Your task to perform on an android device: Go to accessibility settings Image 0: 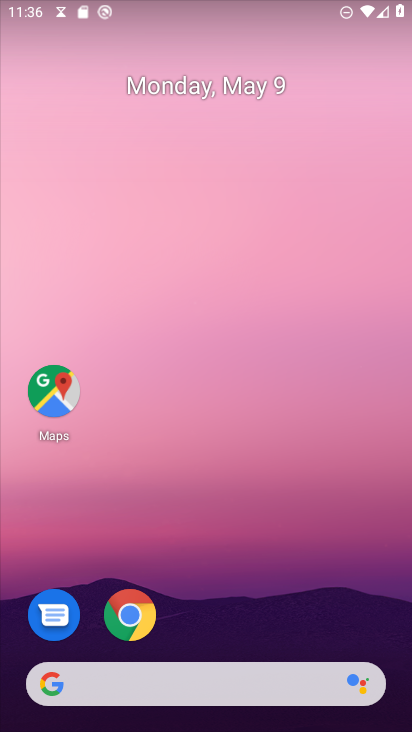
Step 0: drag from (209, 729) to (207, 222)
Your task to perform on an android device: Go to accessibility settings Image 1: 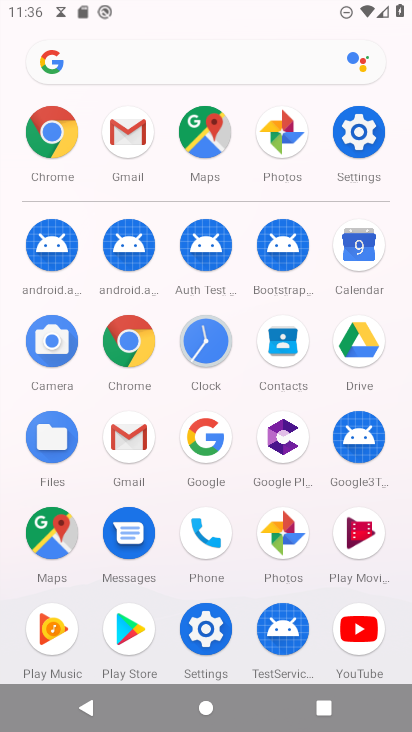
Step 1: click (357, 139)
Your task to perform on an android device: Go to accessibility settings Image 2: 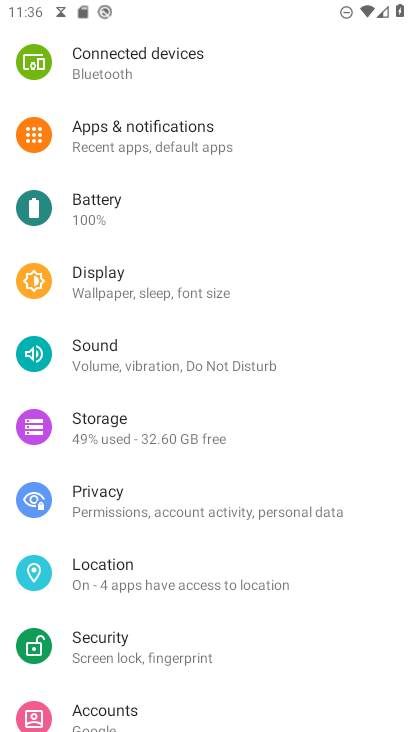
Step 2: drag from (214, 663) to (193, 235)
Your task to perform on an android device: Go to accessibility settings Image 3: 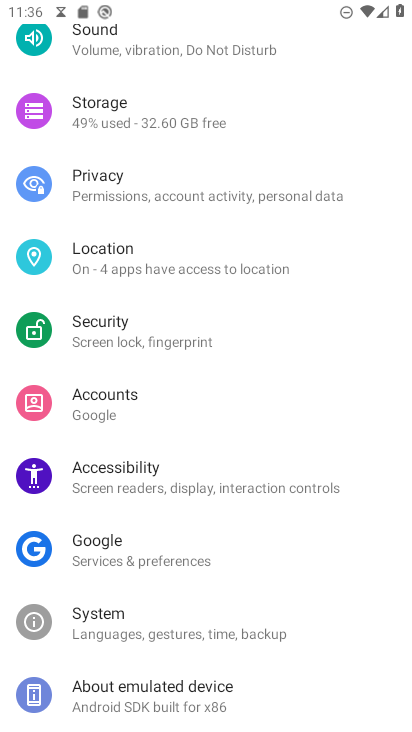
Step 3: click (123, 471)
Your task to perform on an android device: Go to accessibility settings Image 4: 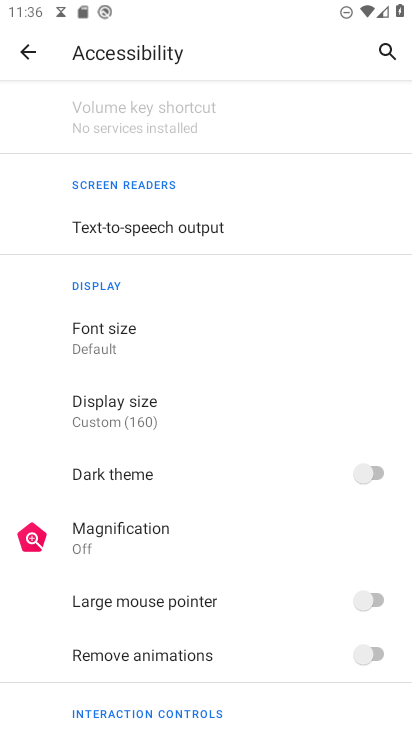
Step 4: task complete